Your task to perform on an android device: Go to eBay Image 0: 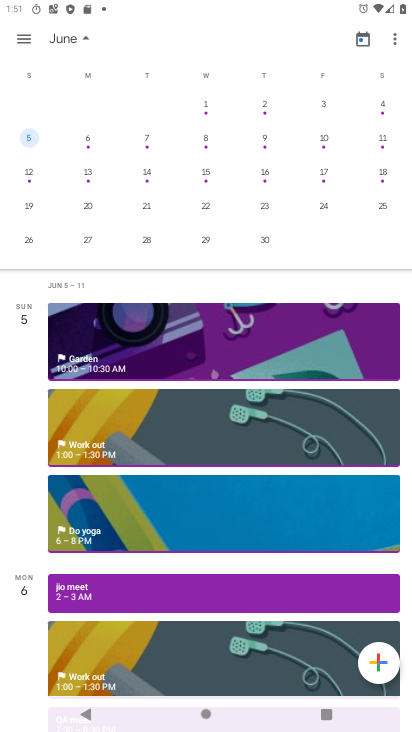
Step 0: press home button
Your task to perform on an android device: Go to eBay Image 1: 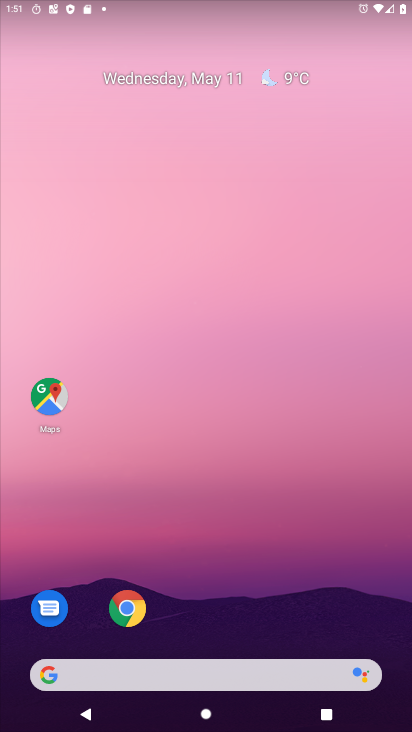
Step 1: click (131, 610)
Your task to perform on an android device: Go to eBay Image 2: 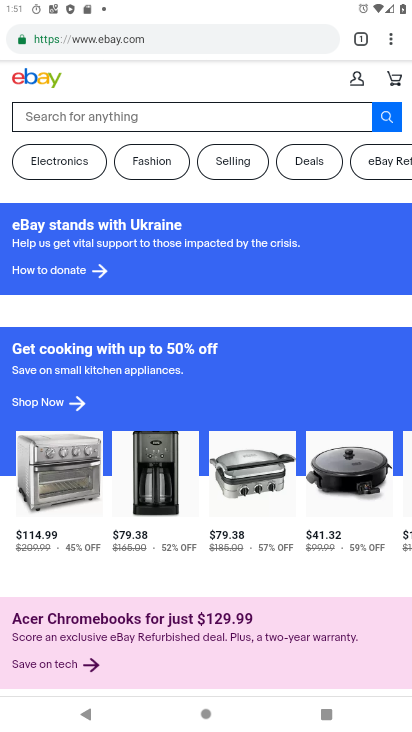
Step 2: task complete